Your task to perform on an android device: Open maps Image 0: 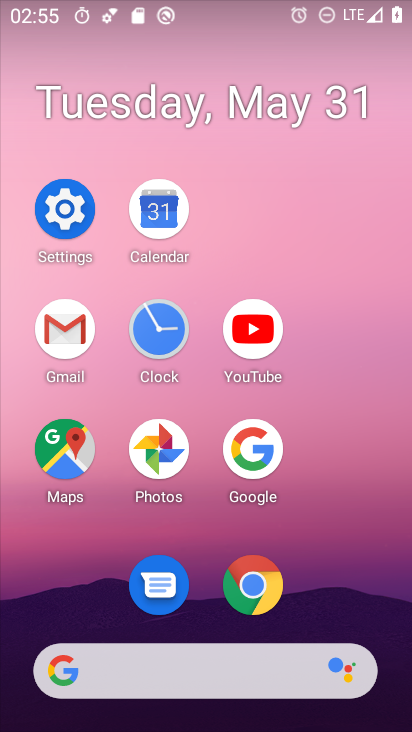
Step 0: click (75, 448)
Your task to perform on an android device: Open maps Image 1: 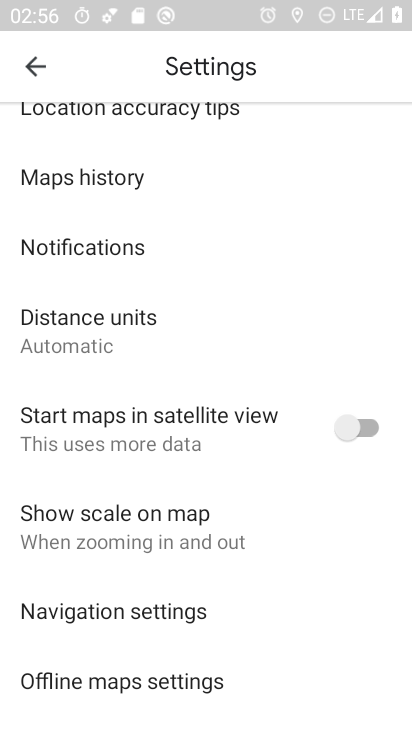
Step 1: task complete